Your task to perform on an android device: open chrome privacy settings Image 0: 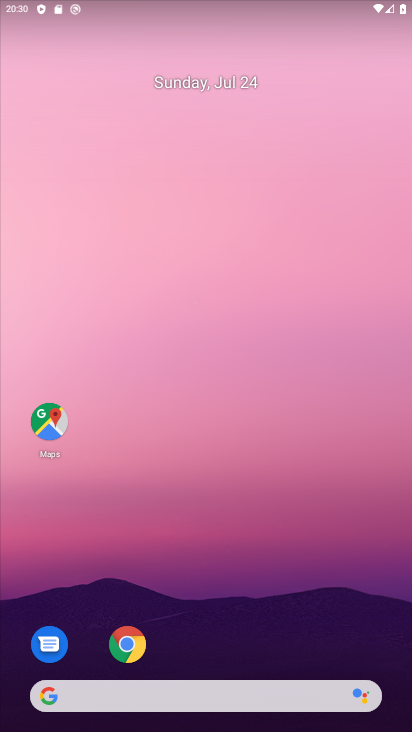
Step 0: click (128, 641)
Your task to perform on an android device: open chrome privacy settings Image 1: 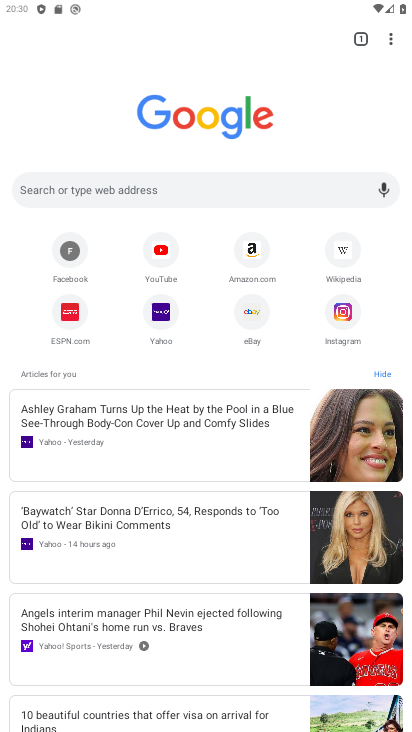
Step 1: click (389, 41)
Your task to perform on an android device: open chrome privacy settings Image 2: 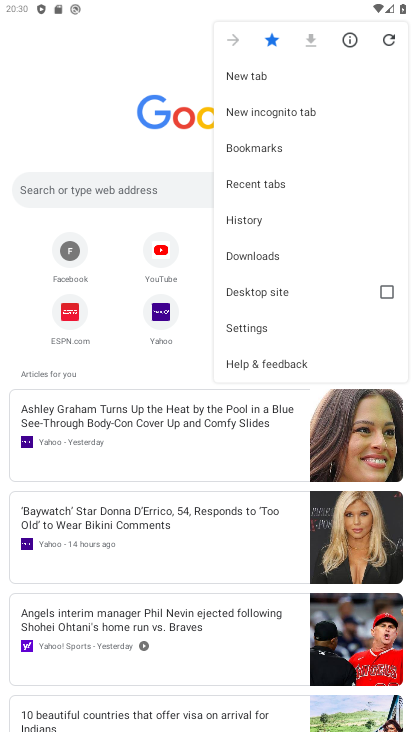
Step 2: click (247, 323)
Your task to perform on an android device: open chrome privacy settings Image 3: 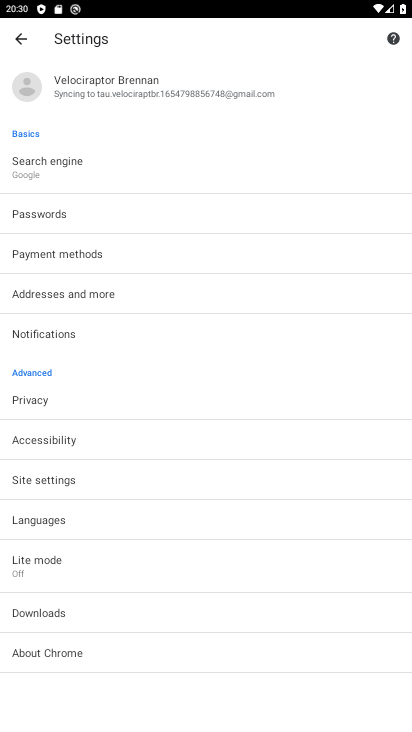
Step 3: click (26, 403)
Your task to perform on an android device: open chrome privacy settings Image 4: 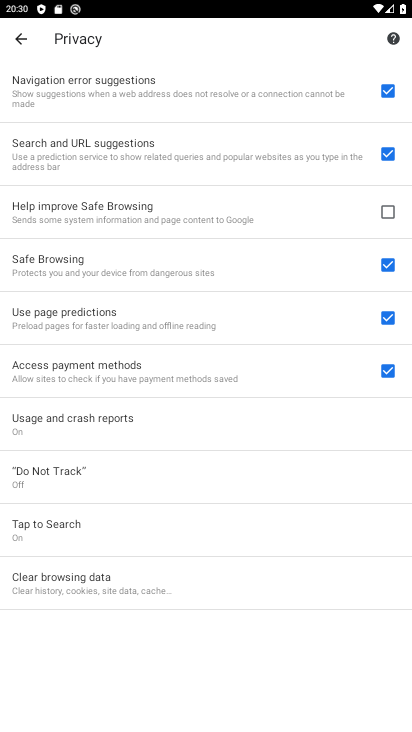
Step 4: task complete